Your task to perform on an android device: Search for pizza restaurants on Maps Image 0: 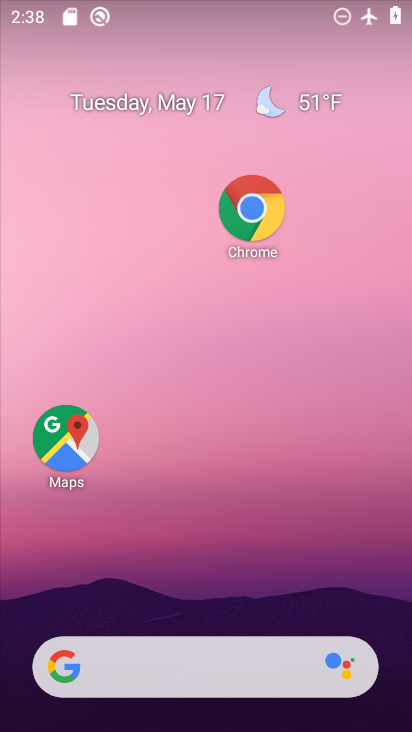
Step 0: click (43, 436)
Your task to perform on an android device: Search for pizza restaurants on Maps Image 1: 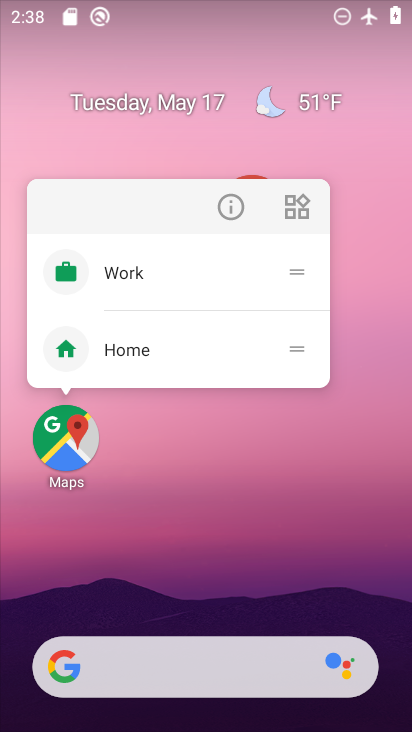
Step 1: click (48, 436)
Your task to perform on an android device: Search for pizza restaurants on Maps Image 2: 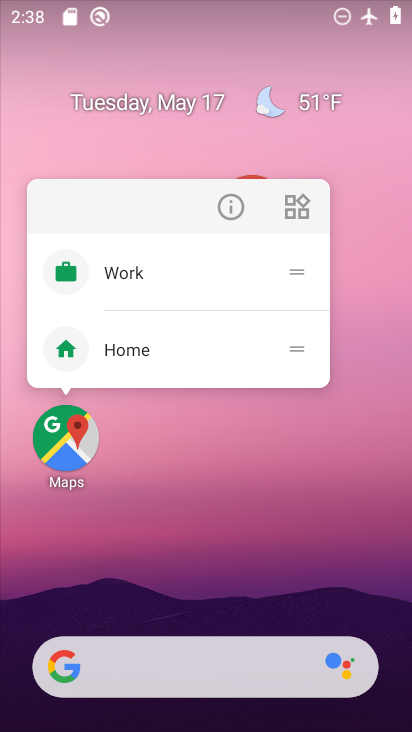
Step 2: click (61, 404)
Your task to perform on an android device: Search for pizza restaurants on Maps Image 3: 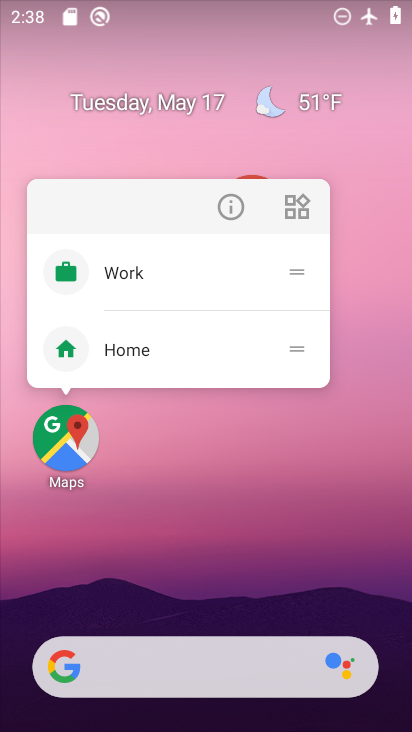
Step 3: click (67, 423)
Your task to perform on an android device: Search for pizza restaurants on Maps Image 4: 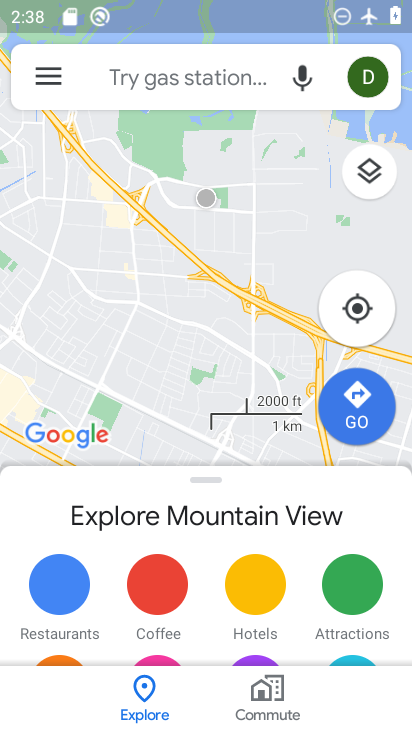
Step 4: task complete